Your task to perform on an android device: Show me productivity apps on the Play Store Image 0: 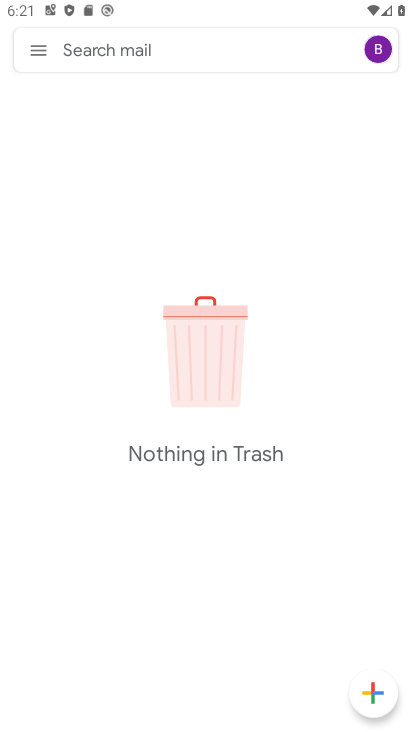
Step 0: press home button
Your task to perform on an android device: Show me productivity apps on the Play Store Image 1: 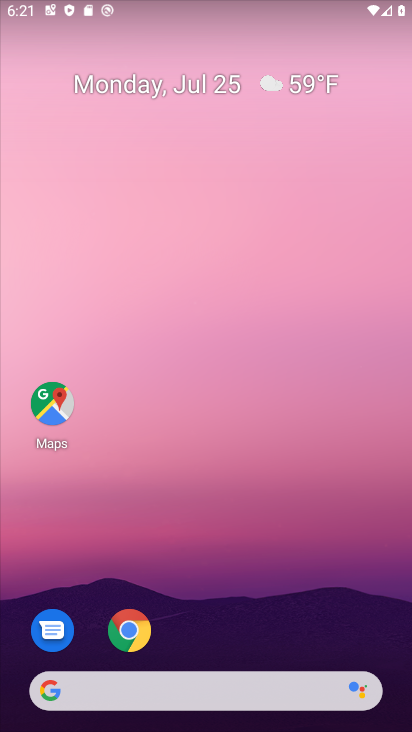
Step 1: drag from (215, 629) to (204, 261)
Your task to perform on an android device: Show me productivity apps on the Play Store Image 2: 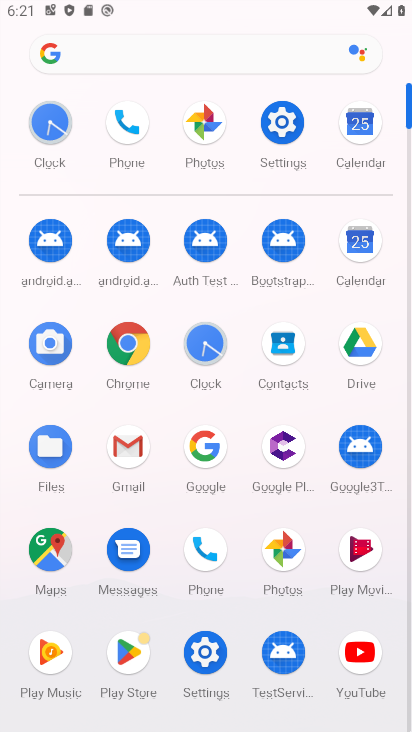
Step 2: click (129, 661)
Your task to perform on an android device: Show me productivity apps on the Play Store Image 3: 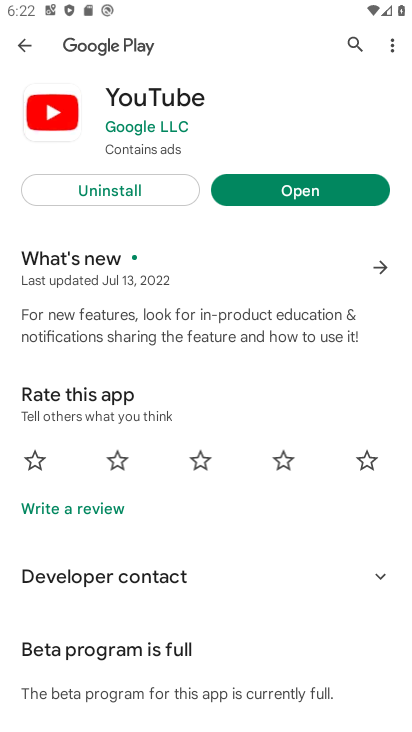
Step 3: click (20, 47)
Your task to perform on an android device: Show me productivity apps on the Play Store Image 4: 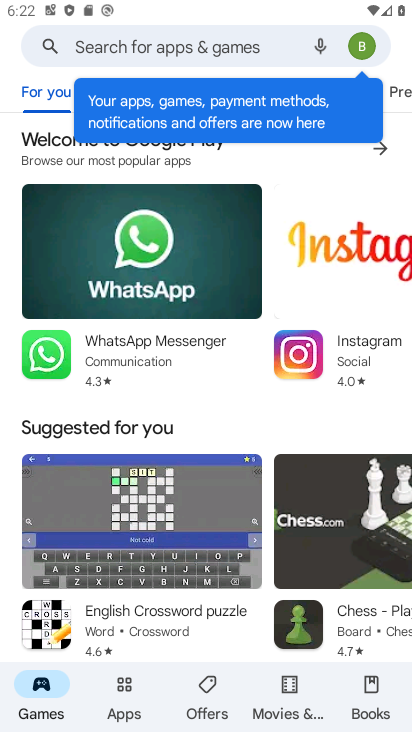
Step 4: click (117, 698)
Your task to perform on an android device: Show me productivity apps on the Play Store Image 5: 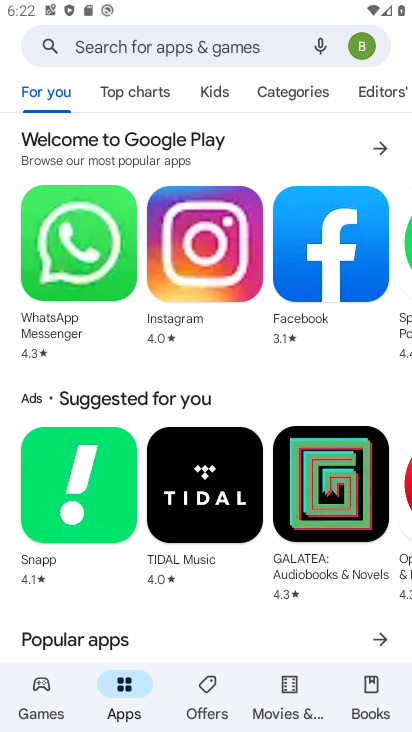
Step 5: click (288, 83)
Your task to perform on an android device: Show me productivity apps on the Play Store Image 6: 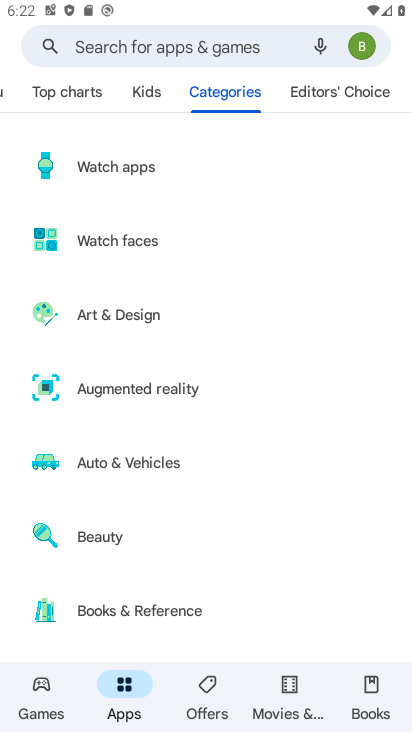
Step 6: drag from (117, 529) to (101, 194)
Your task to perform on an android device: Show me productivity apps on the Play Store Image 7: 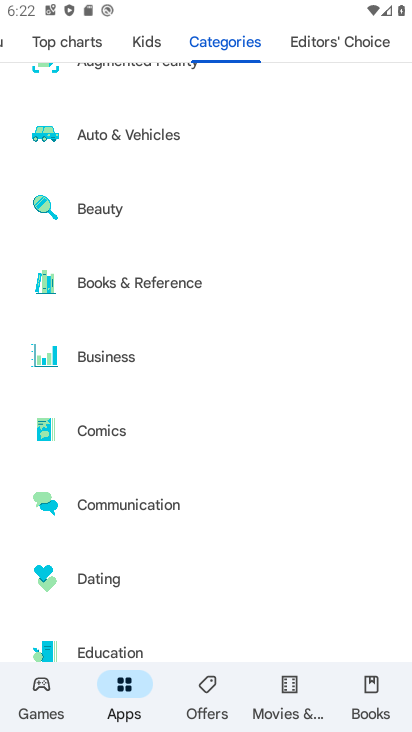
Step 7: drag from (142, 551) to (133, 374)
Your task to perform on an android device: Show me productivity apps on the Play Store Image 8: 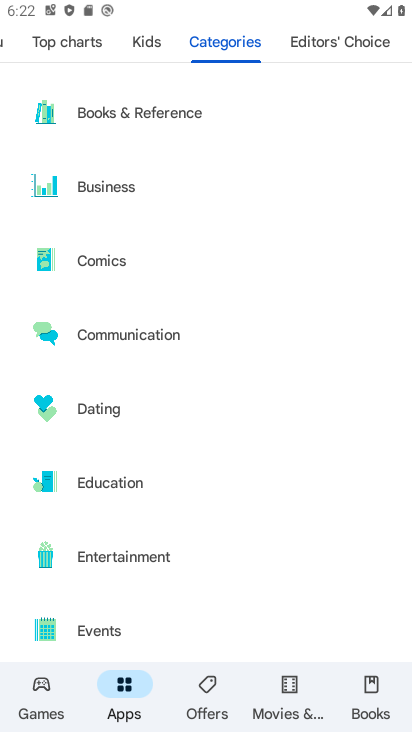
Step 8: drag from (133, 477) to (139, 309)
Your task to perform on an android device: Show me productivity apps on the Play Store Image 9: 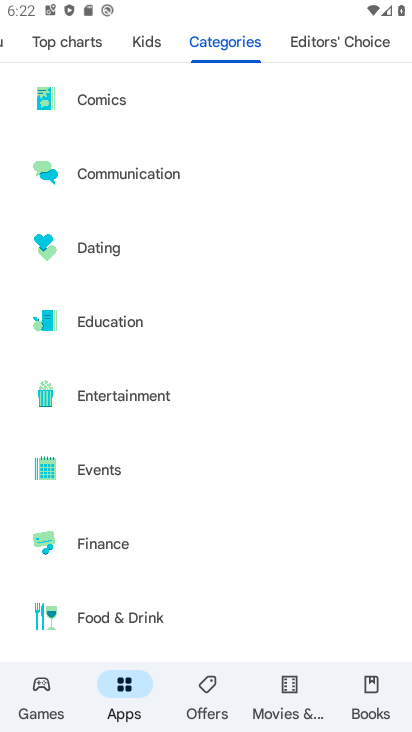
Step 9: drag from (121, 560) to (131, 357)
Your task to perform on an android device: Show me productivity apps on the Play Store Image 10: 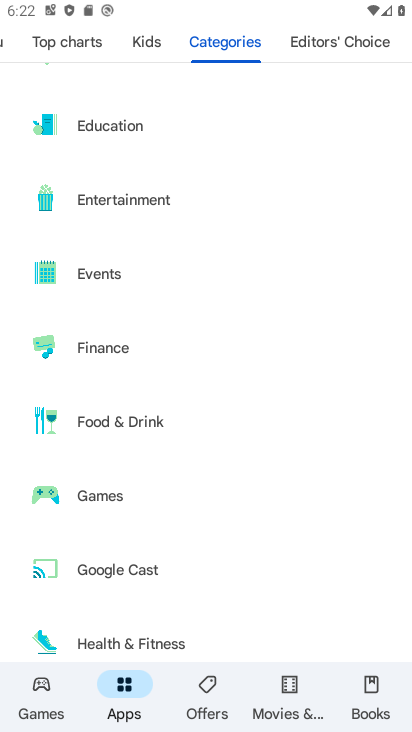
Step 10: drag from (108, 446) to (123, 5)
Your task to perform on an android device: Show me productivity apps on the Play Store Image 11: 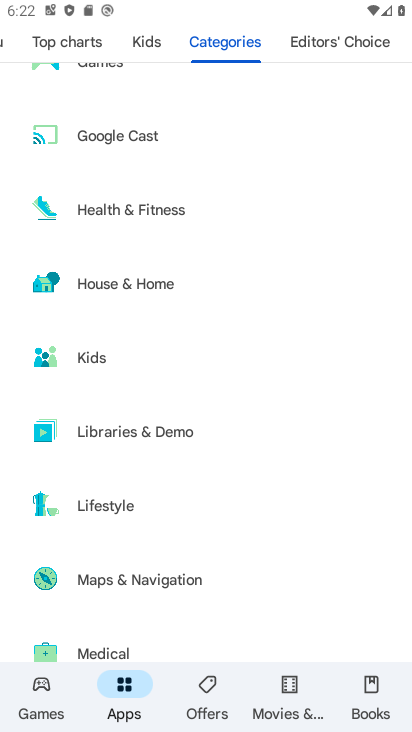
Step 11: drag from (137, 381) to (149, 226)
Your task to perform on an android device: Show me productivity apps on the Play Store Image 12: 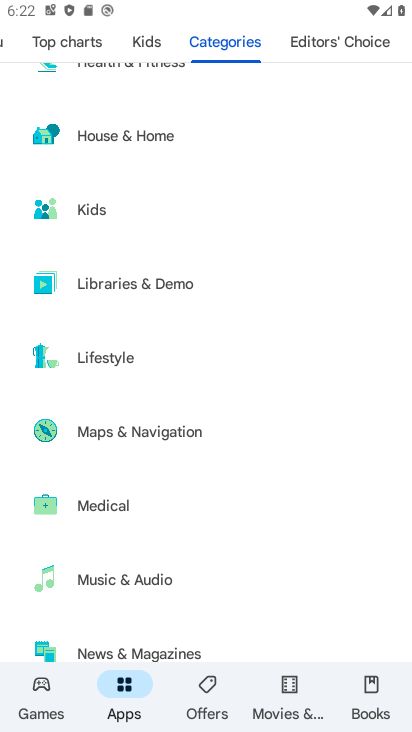
Step 12: drag from (130, 456) to (171, 197)
Your task to perform on an android device: Show me productivity apps on the Play Store Image 13: 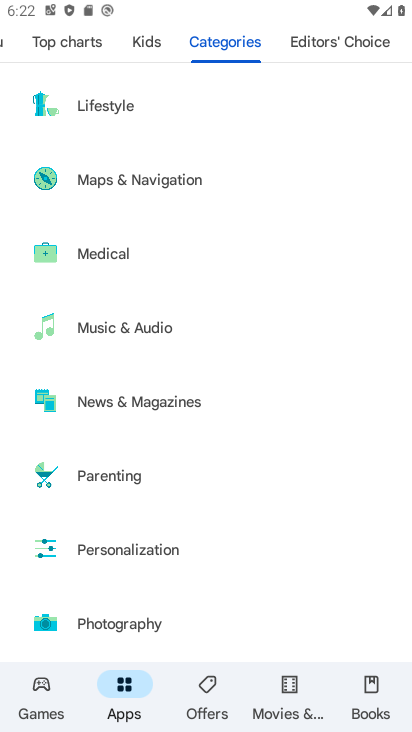
Step 13: drag from (146, 566) to (146, 283)
Your task to perform on an android device: Show me productivity apps on the Play Store Image 14: 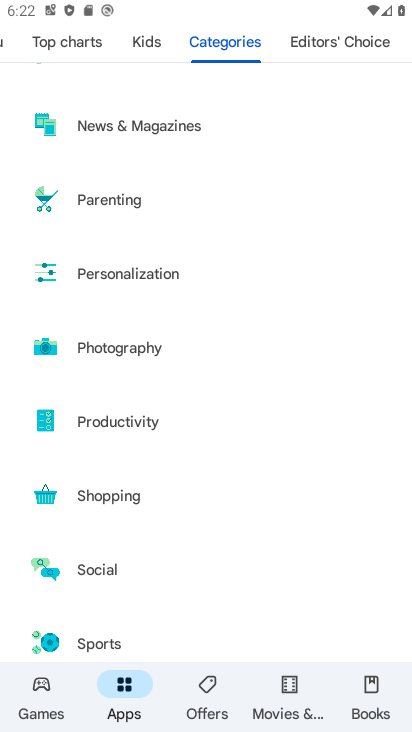
Step 14: click (96, 422)
Your task to perform on an android device: Show me productivity apps on the Play Store Image 15: 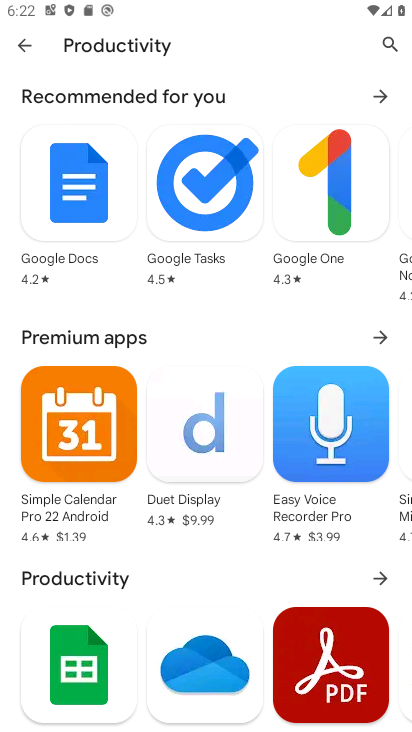
Step 15: task complete